Your task to perform on an android device: open app "The Home Depot" (install if not already installed) and go to login screen Image 0: 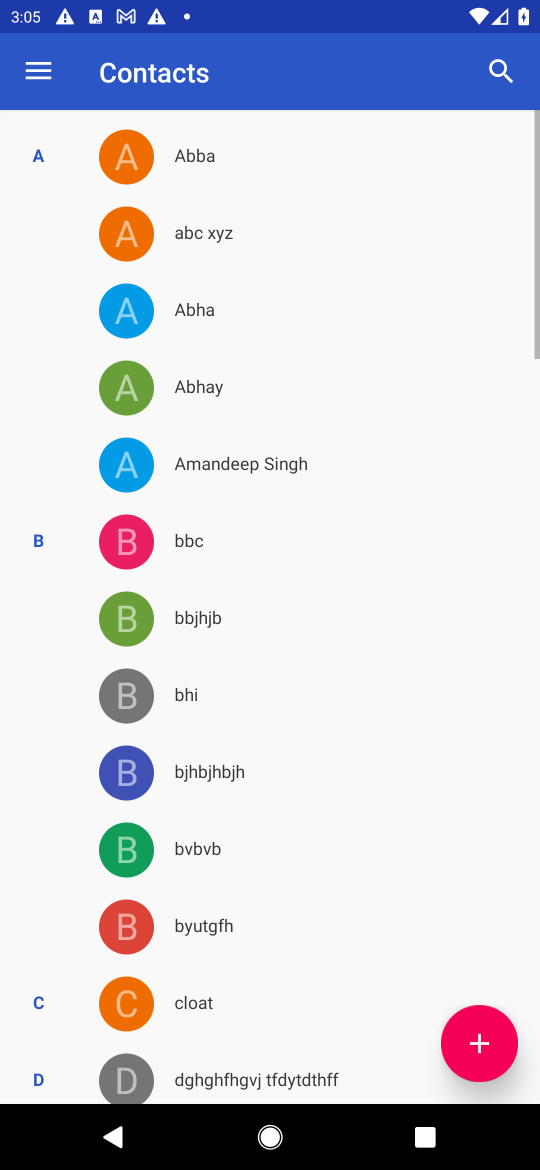
Step 0: press home button
Your task to perform on an android device: open app "The Home Depot" (install if not already installed) and go to login screen Image 1: 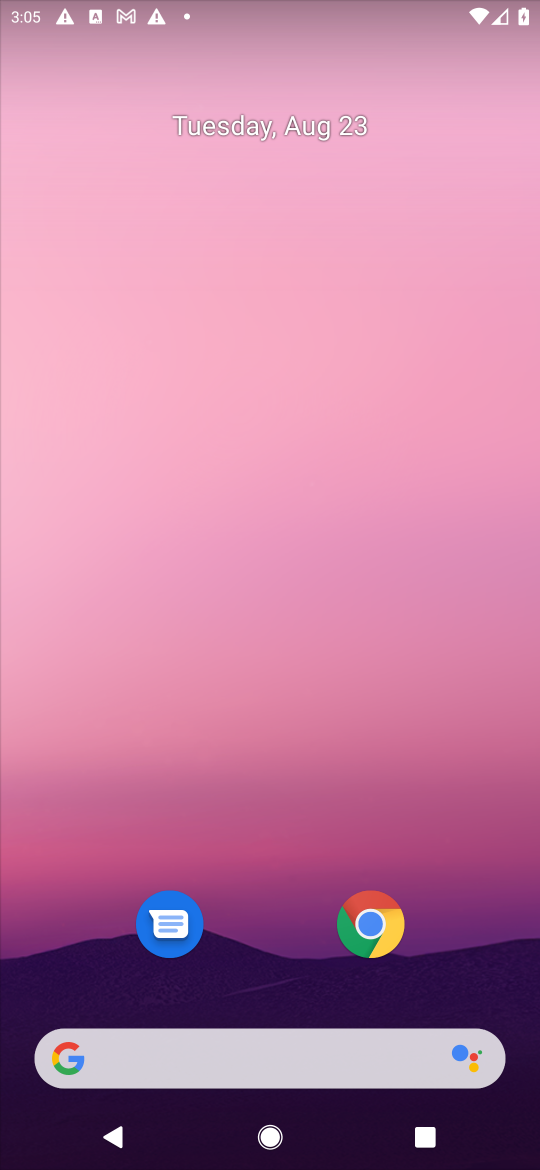
Step 1: drag from (467, 761) to (422, 84)
Your task to perform on an android device: open app "The Home Depot" (install if not already installed) and go to login screen Image 2: 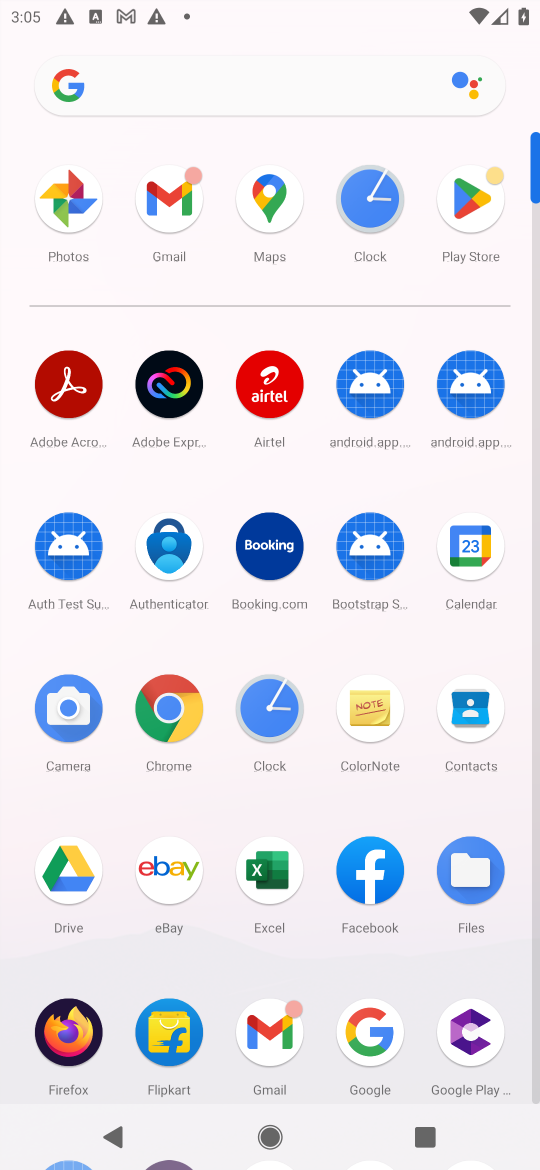
Step 2: click (465, 197)
Your task to perform on an android device: open app "The Home Depot" (install if not already installed) and go to login screen Image 3: 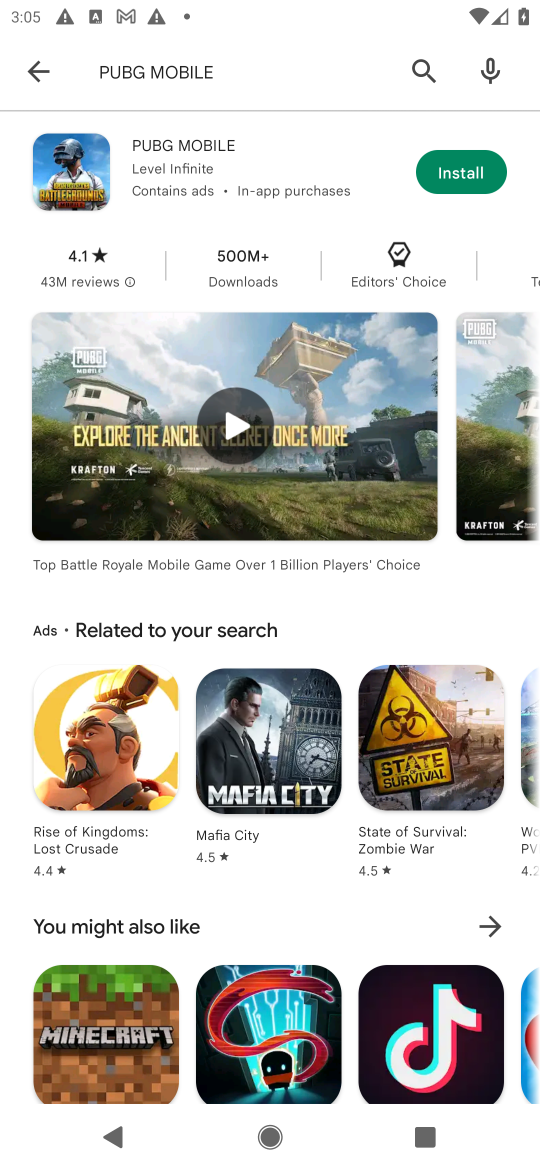
Step 3: press back button
Your task to perform on an android device: open app "The Home Depot" (install if not already installed) and go to login screen Image 4: 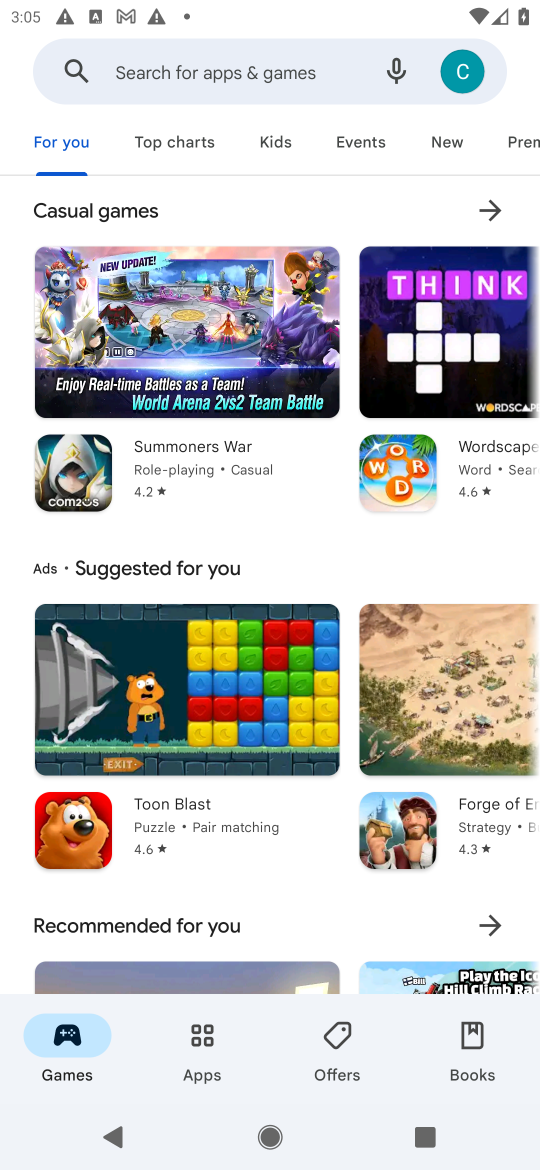
Step 4: click (195, 71)
Your task to perform on an android device: open app "The Home Depot" (install if not already installed) and go to login screen Image 5: 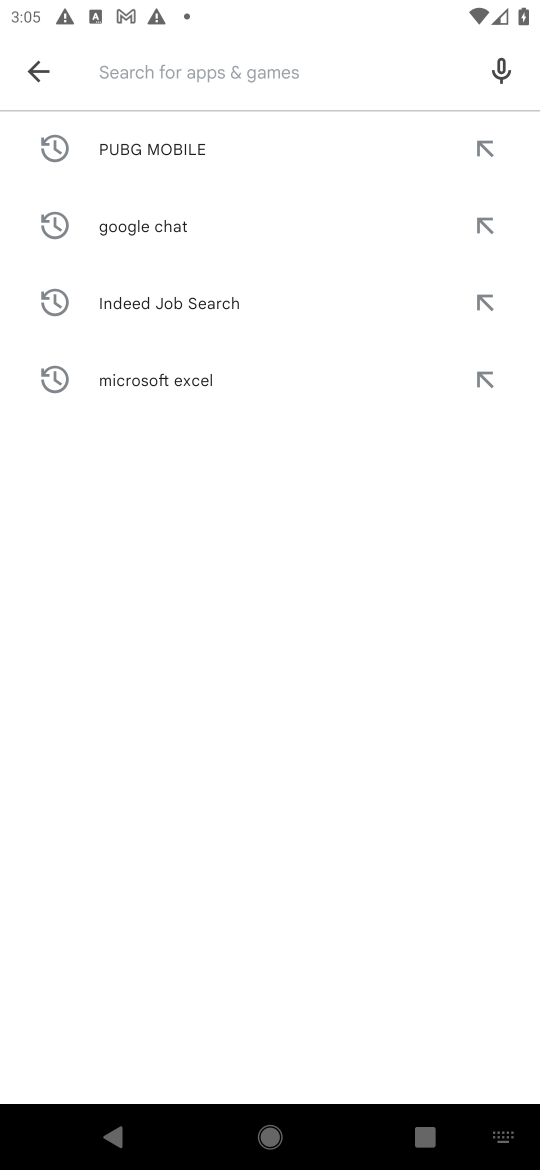
Step 5: type "The Home Depot"
Your task to perform on an android device: open app "The Home Depot" (install if not already installed) and go to login screen Image 6: 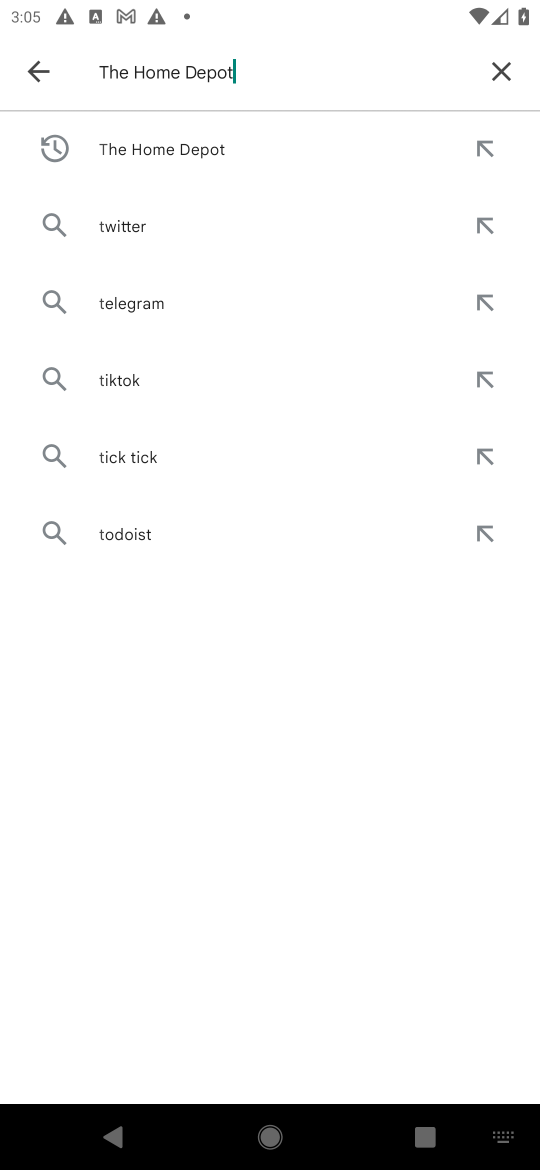
Step 6: press enter
Your task to perform on an android device: open app "The Home Depot" (install if not already installed) and go to login screen Image 7: 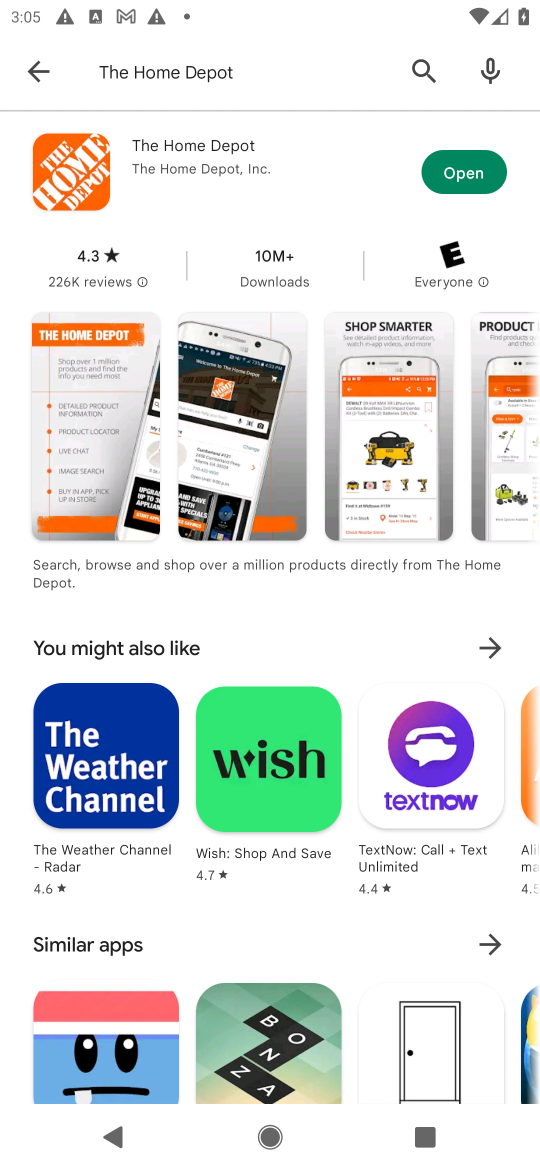
Step 7: click (465, 169)
Your task to perform on an android device: open app "The Home Depot" (install if not already installed) and go to login screen Image 8: 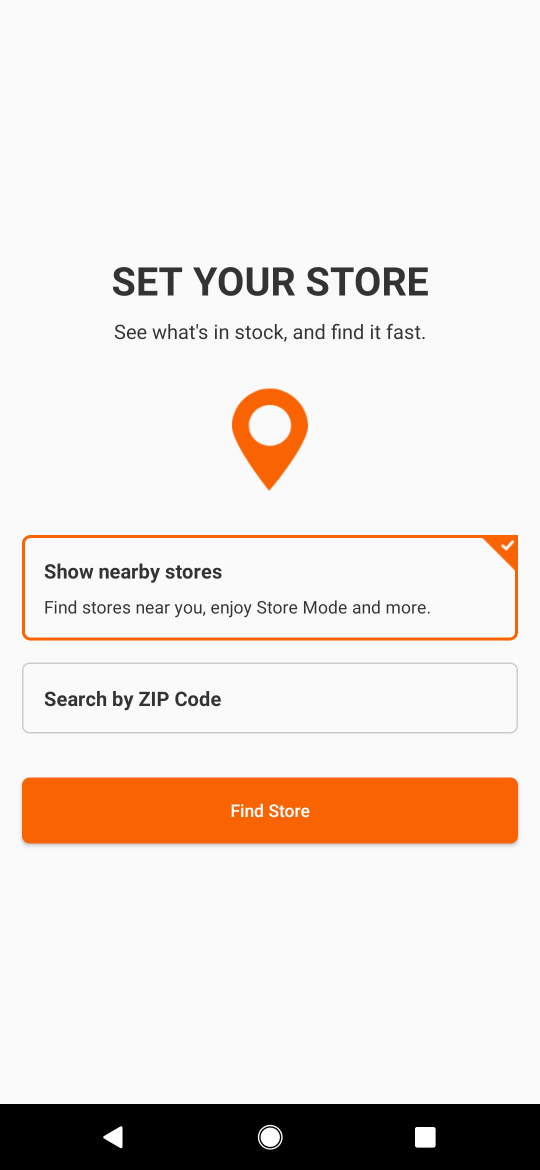
Step 8: task complete